Your task to perform on an android device: manage bookmarks in the chrome app Image 0: 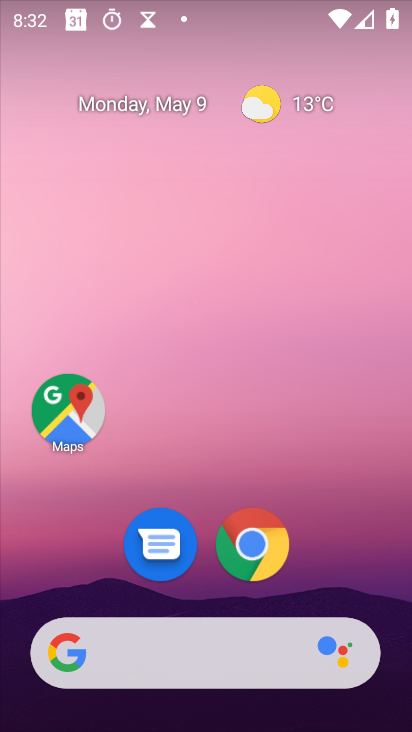
Step 0: click (278, 572)
Your task to perform on an android device: manage bookmarks in the chrome app Image 1: 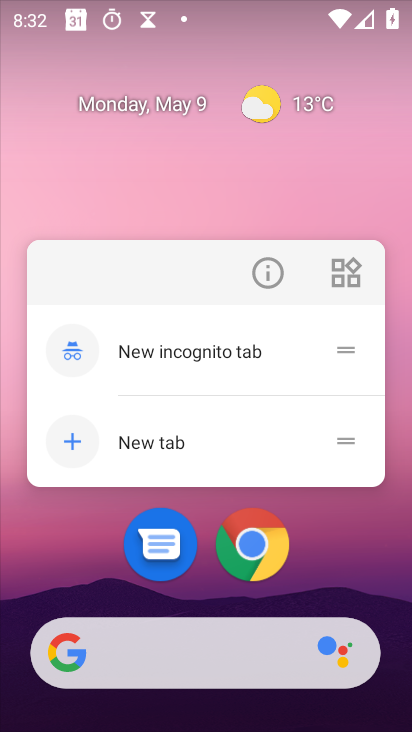
Step 1: click (273, 559)
Your task to perform on an android device: manage bookmarks in the chrome app Image 2: 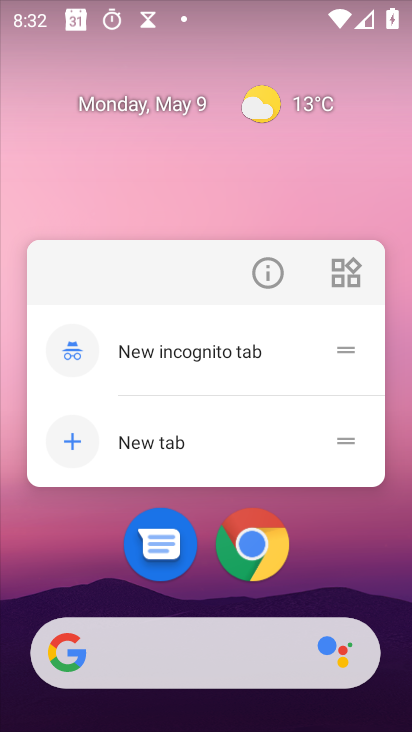
Step 2: click (272, 558)
Your task to perform on an android device: manage bookmarks in the chrome app Image 3: 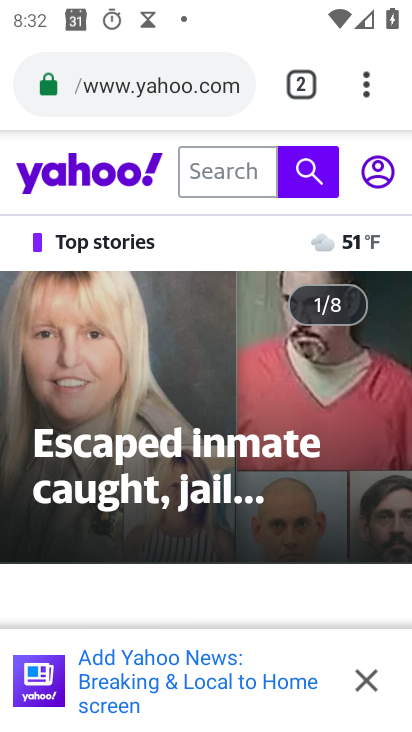
Step 3: drag from (376, 88) to (89, 323)
Your task to perform on an android device: manage bookmarks in the chrome app Image 4: 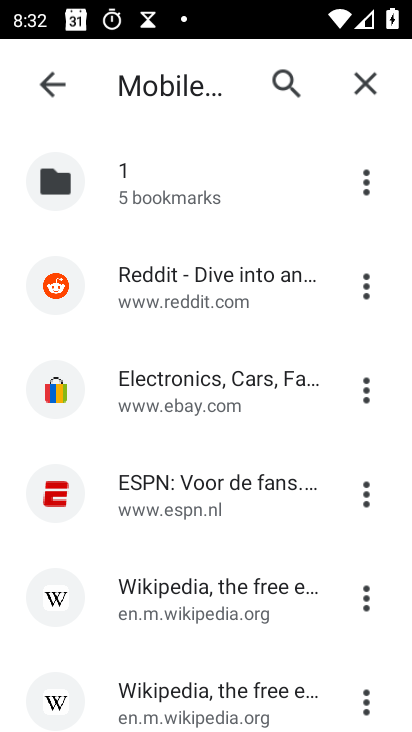
Step 4: click (374, 190)
Your task to perform on an android device: manage bookmarks in the chrome app Image 5: 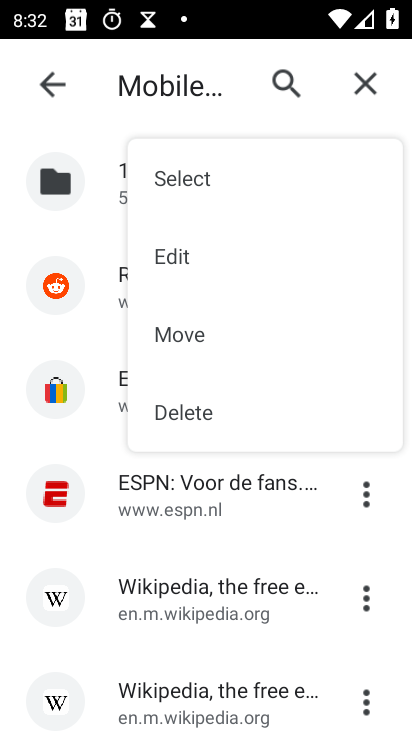
Step 5: click (197, 424)
Your task to perform on an android device: manage bookmarks in the chrome app Image 6: 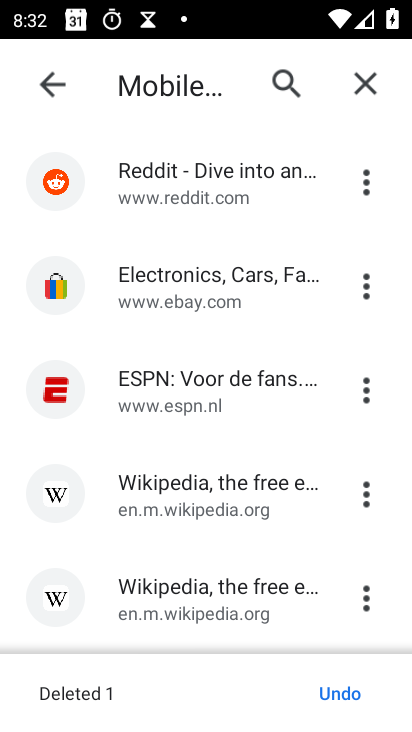
Step 6: task complete